Your task to perform on an android device: turn off airplane mode Image 0: 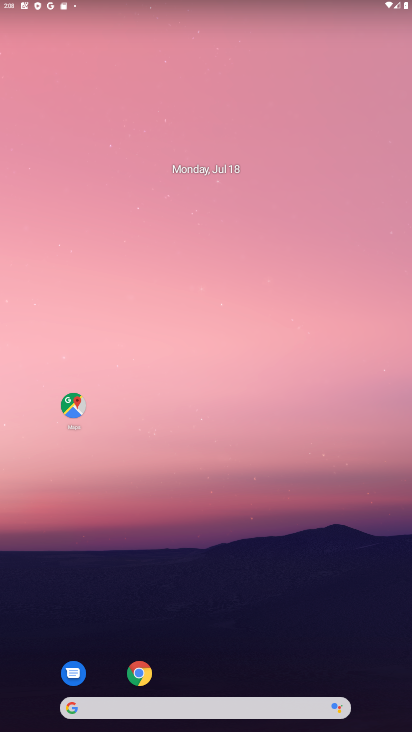
Step 0: drag from (220, 706) to (254, 301)
Your task to perform on an android device: turn off airplane mode Image 1: 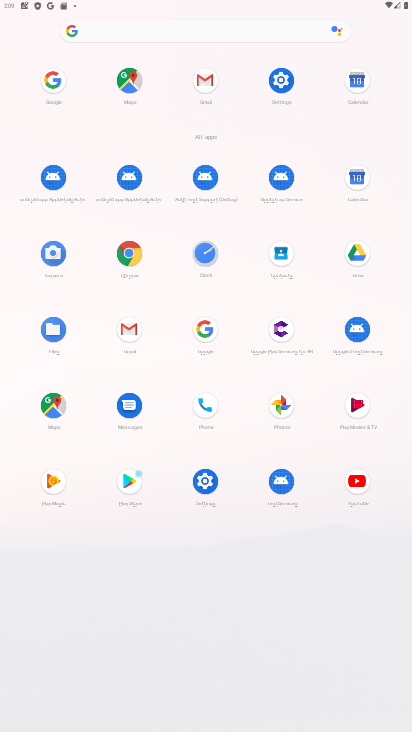
Step 1: click (206, 479)
Your task to perform on an android device: turn off airplane mode Image 2: 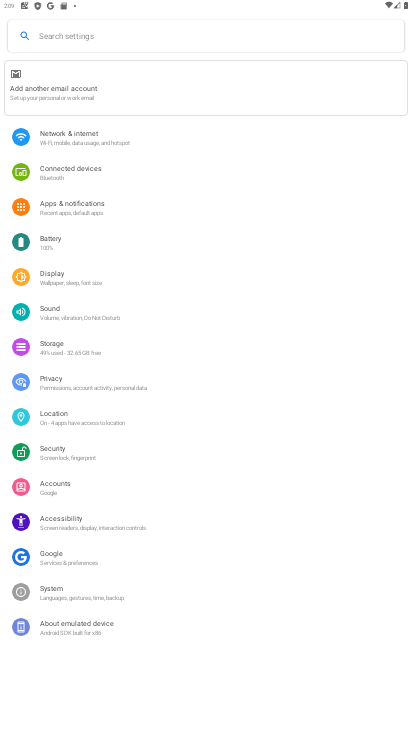
Step 2: click (61, 138)
Your task to perform on an android device: turn off airplane mode Image 3: 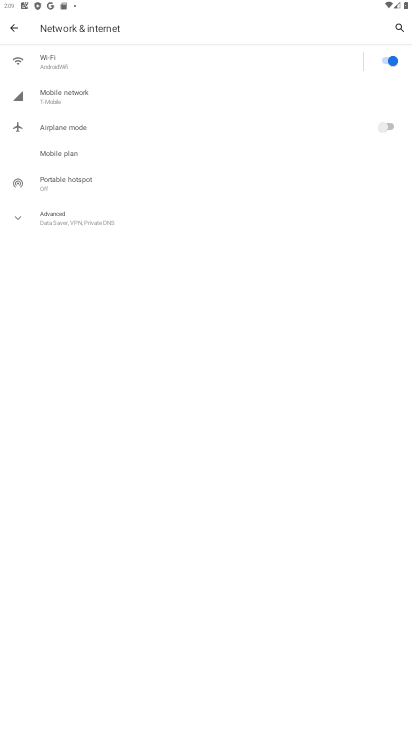
Step 3: task complete